Your task to perform on an android device: turn notification dots off Image 0: 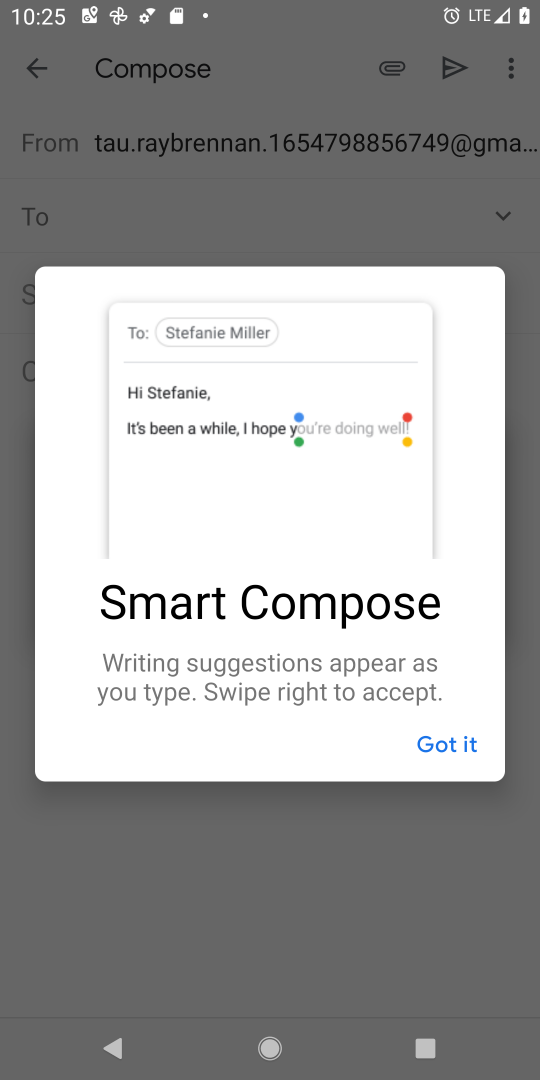
Step 0: press home button
Your task to perform on an android device: turn notification dots off Image 1: 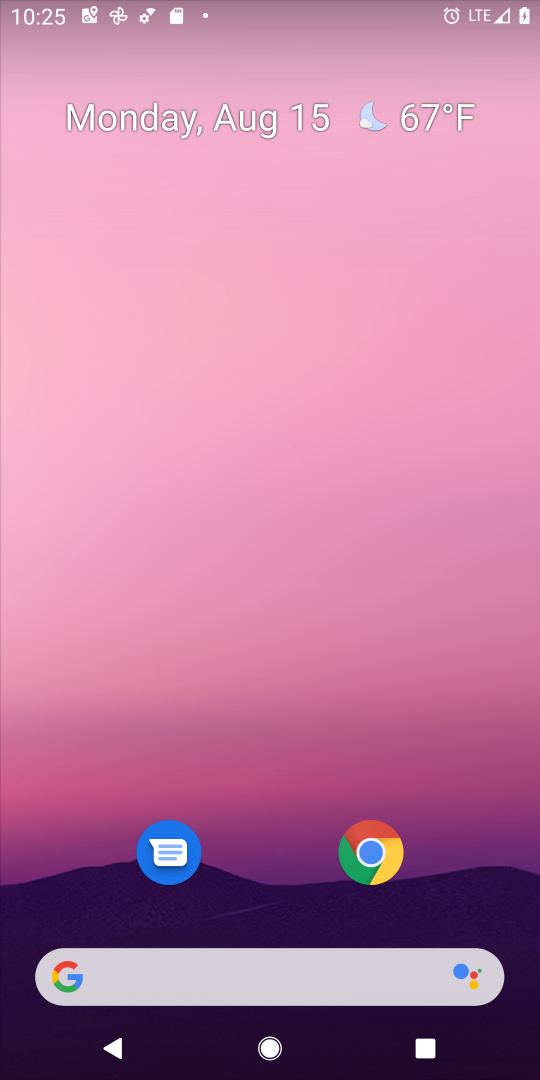
Step 1: drag from (253, 982) to (302, 85)
Your task to perform on an android device: turn notification dots off Image 2: 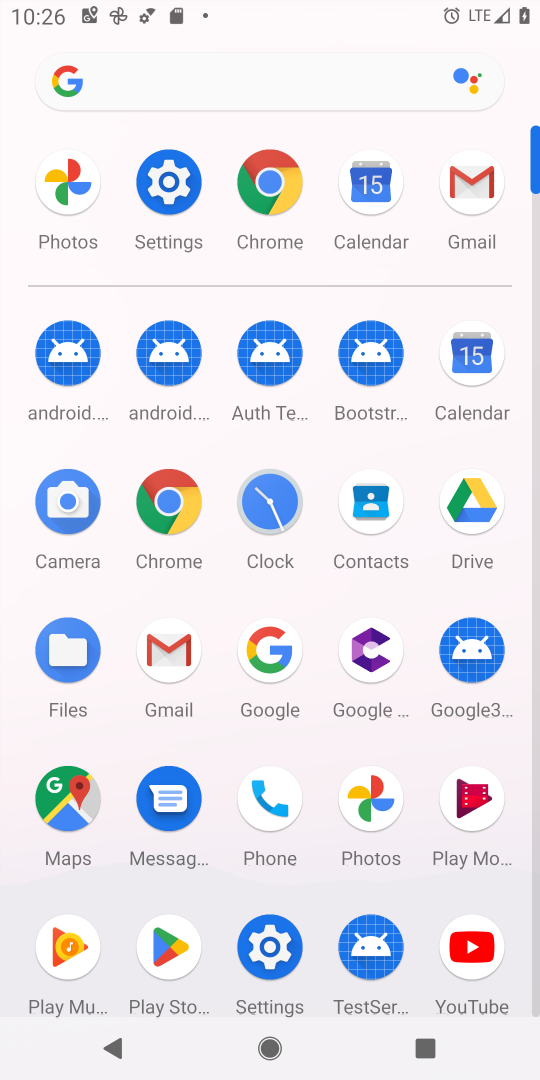
Step 2: click (167, 186)
Your task to perform on an android device: turn notification dots off Image 3: 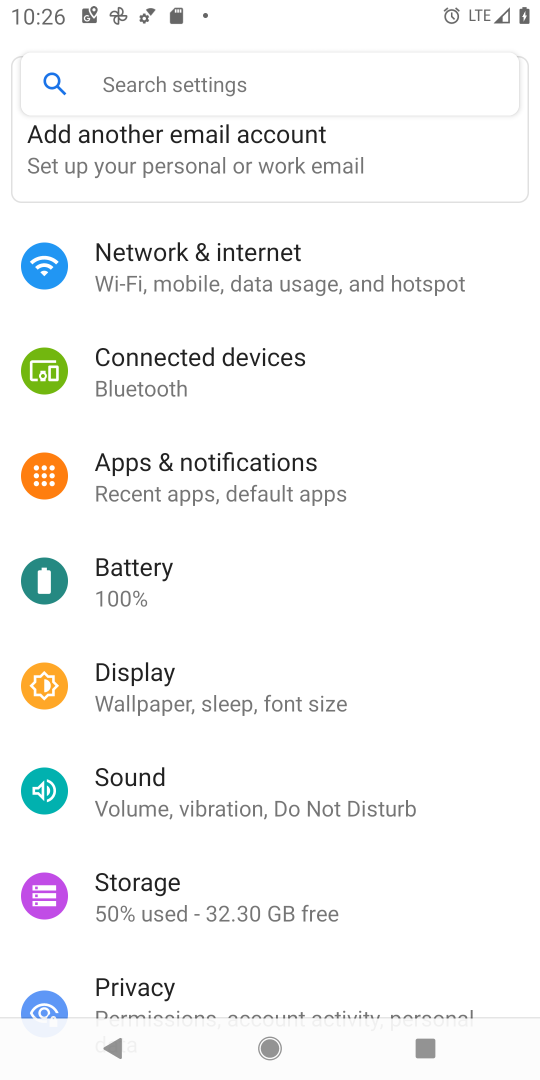
Step 3: click (185, 479)
Your task to perform on an android device: turn notification dots off Image 4: 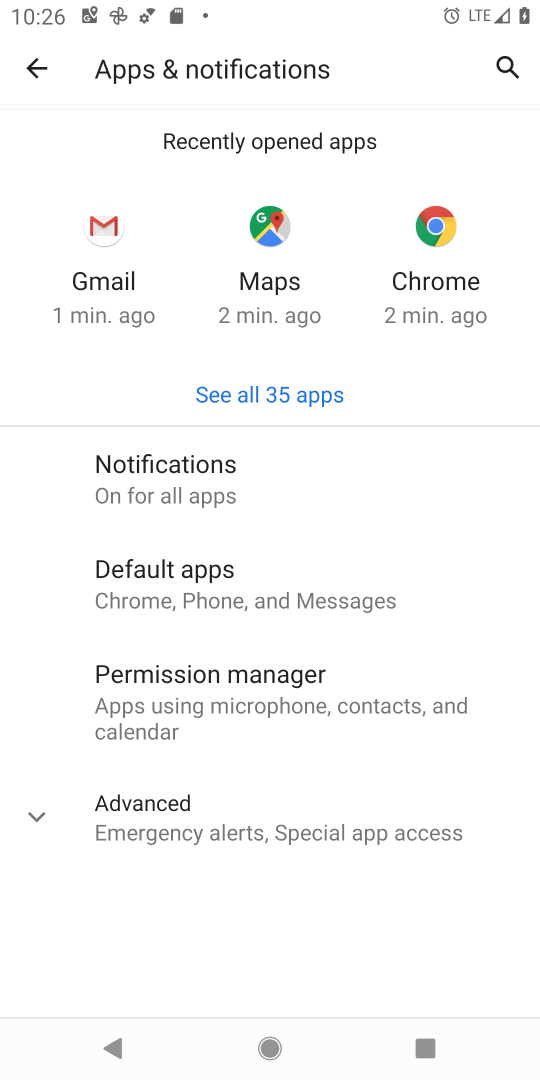
Step 4: click (183, 480)
Your task to perform on an android device: turn notification dots off Image 5: 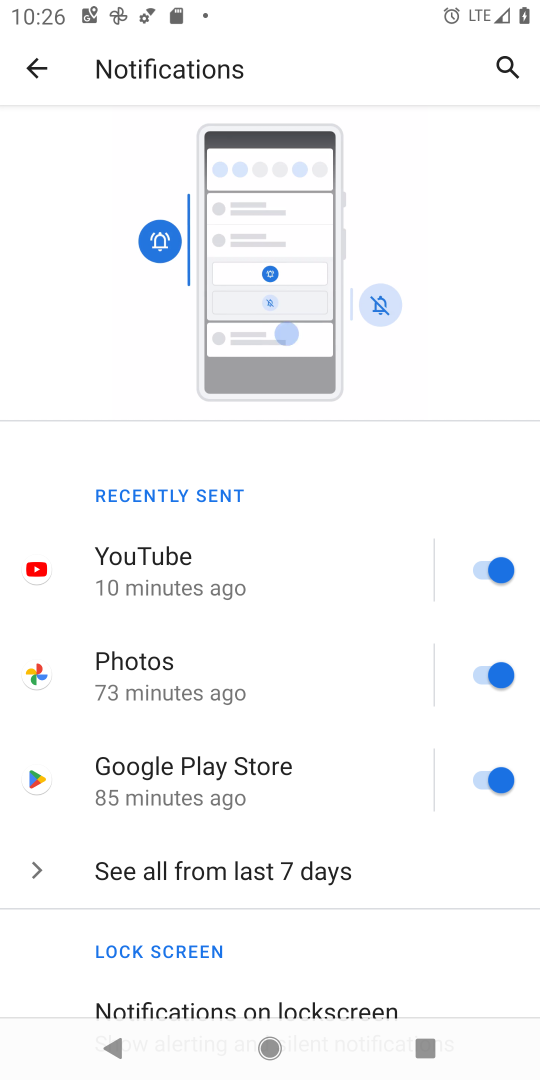
Step 5: drag from (264, 753) to (311, 485)
Your task to perform on an android device: turn notification dots off Image 6: 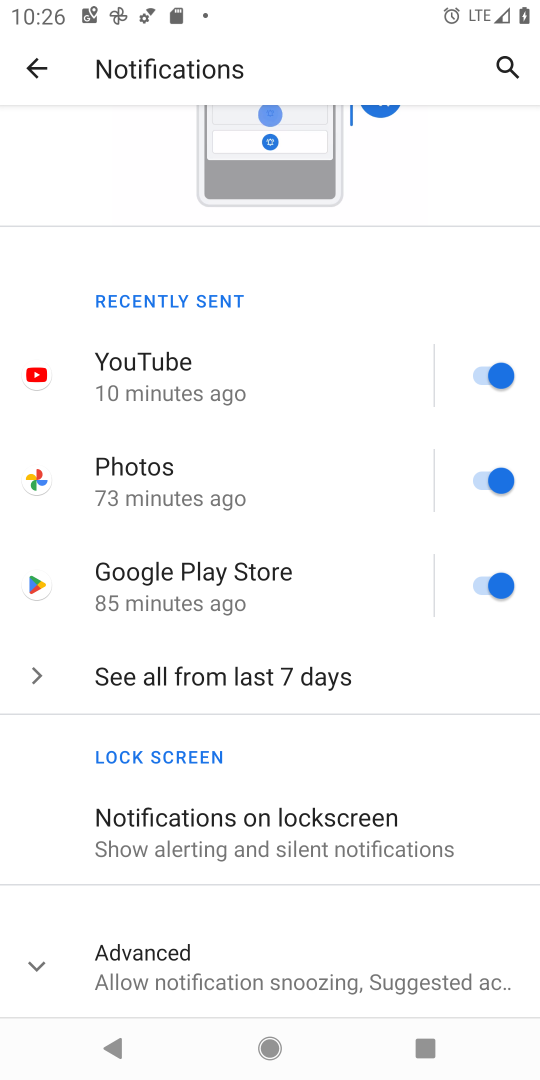
Step 6: click (273, 985)
Your task to perform on an android device: turn notification dots off Image 7: 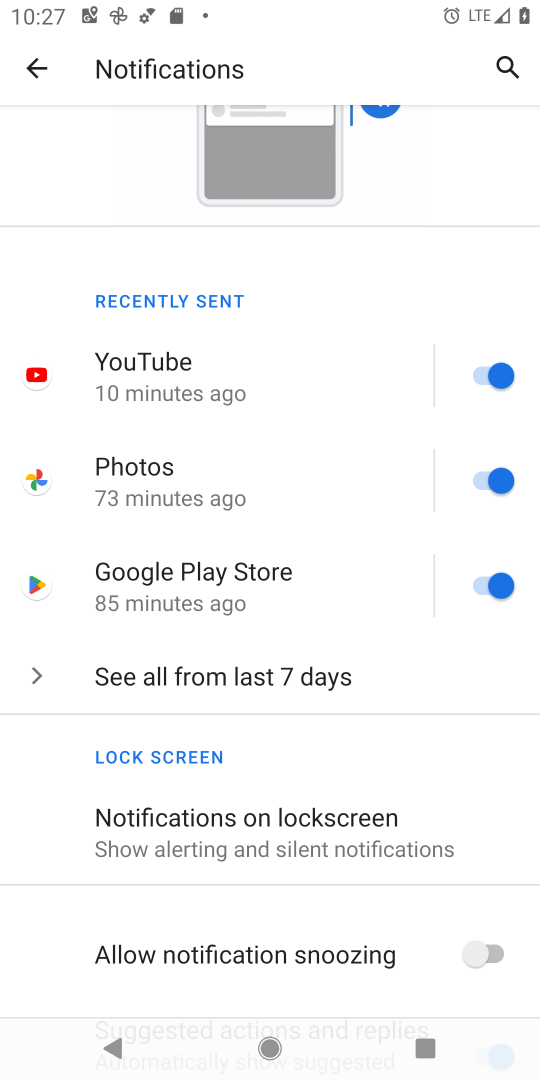
Step 7: task complete